Your task to perform on an android device: allow notifications from all sites in the chrome app Image 0: 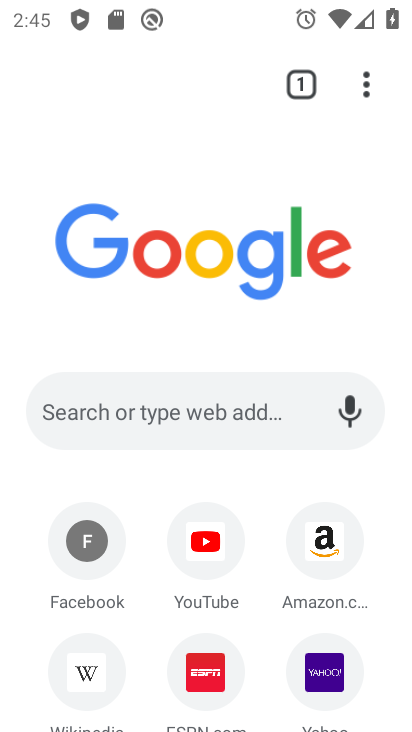
Step 0: drag from (370, 73) to (134, 593)
Your task to perform on an android device: allow notifications from all sites in the chrome app Image 1: 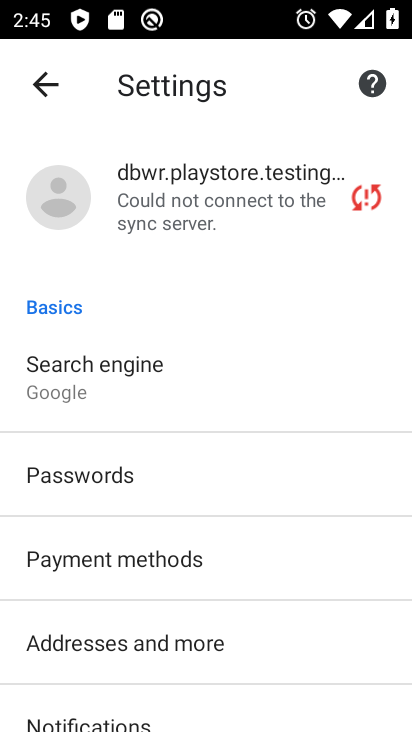
Step 1: drag from (154, 457) to (143, 30)
Your task to perform on an android device: allow notifications from all sites in the chrome app Image 2: 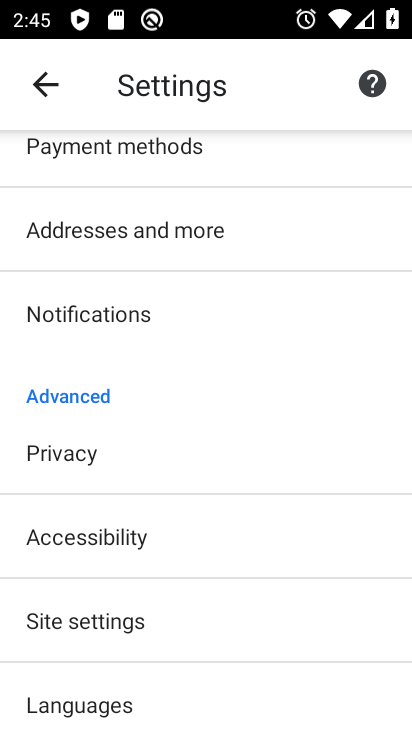
Step 2: click (134, 609)
Your task to perform on an android device: allow notifications from all sites in the chrome app Image 3: 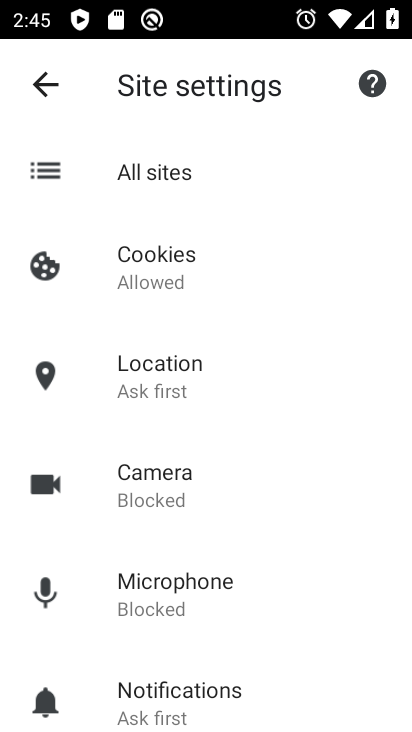
Step 3: click (164, 697)
Your task to perform on an android device: allow notifications from all sites in the chrome app Image 4: 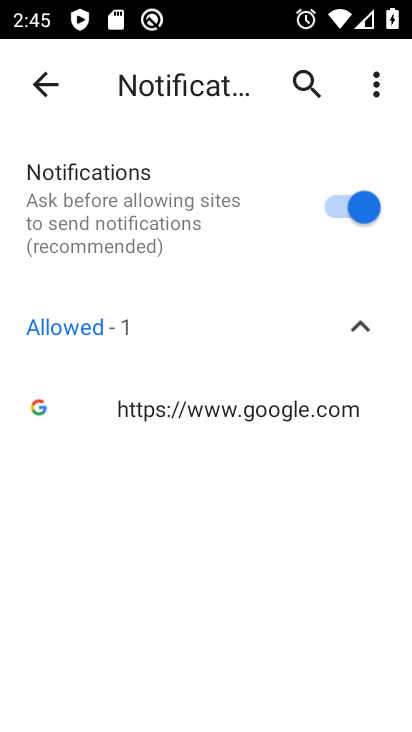
Step 4: task complete